Your task to perform on an android device: toggle priority inbox in the gmail app Image 0: 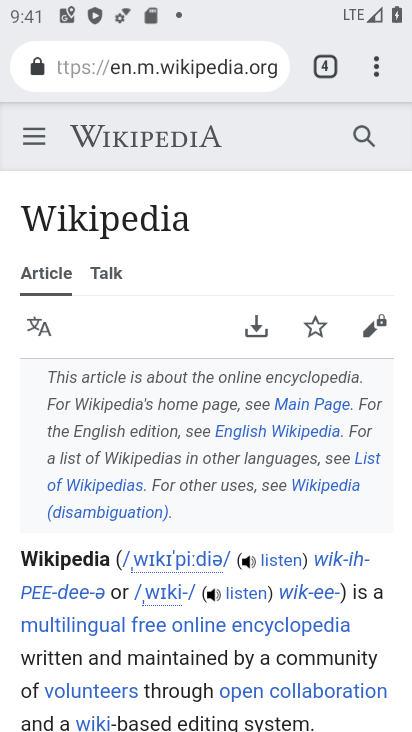
Step 0: press home button
Your task to perform on an android device: toggle priority inbox in the gmail app Image 1: 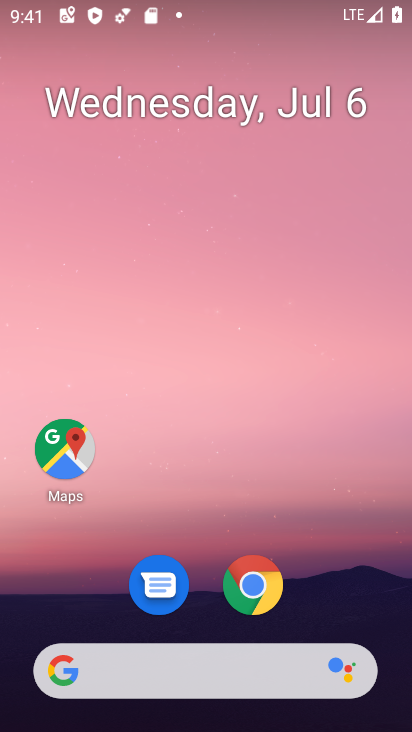
Step 1: click (129, 684)
Your task to perform on an android device: toggle priority inbox in the gmail app Image 2: 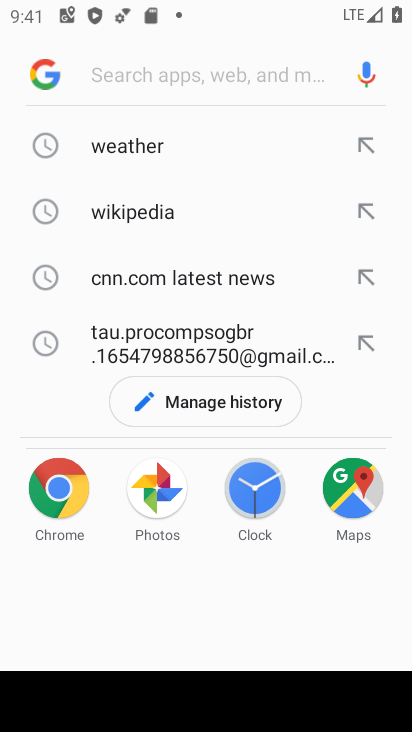
Step 2: press home button
Your task to perform on an android device: toggle priority inbox in the gmail app Image 3: 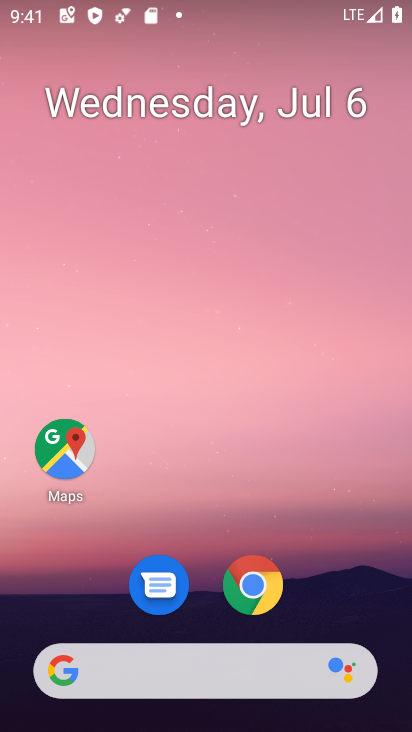
Step 3: drag from (242, 497) to (270, 1)
Your task to perform on an android device: toggle priority inbox in the gmail app Image 4: 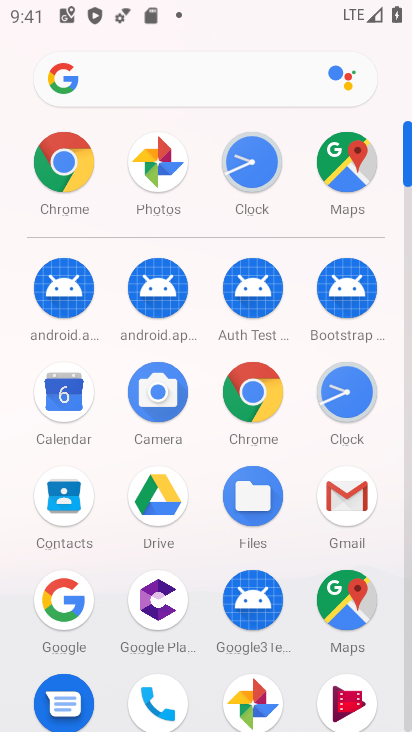
Step 4: click (351, 498)
Your task to perform on an android device: toggle priority inbox in the gmail app Image 5: 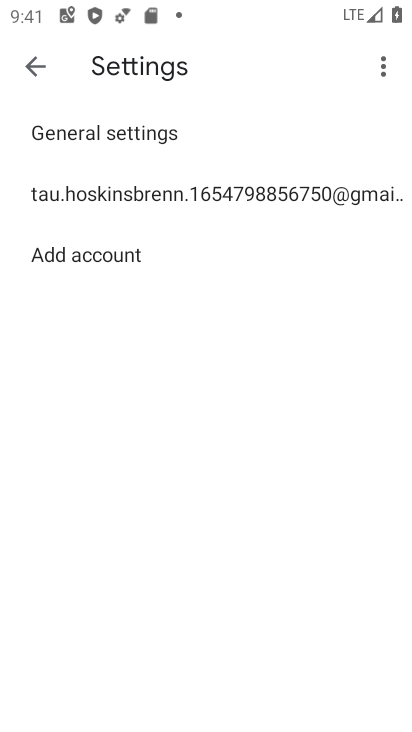
Step 5: click (106, 182)
Your task to perform on an android device: toggle priority inbox in the gmail app Image 6: 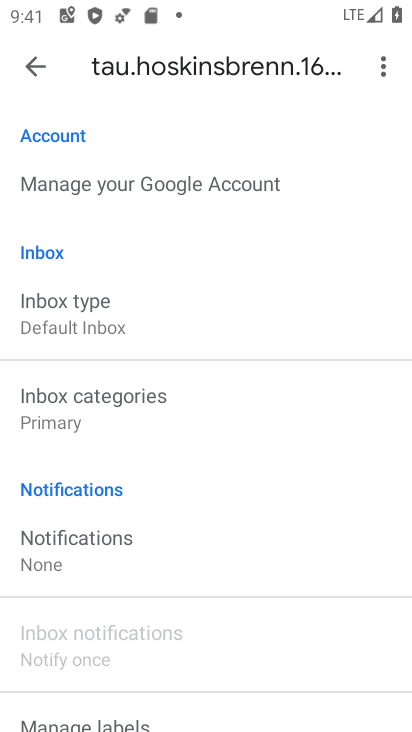
Step 6: click (97, 307)
Your task to perform on an android device: toggle priority inbox in the gmail app Image 7: 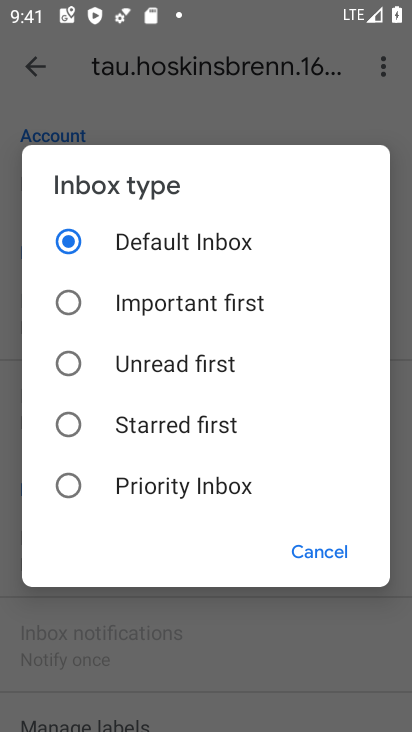
Step 7: click (65, 486)
Your task to perform on an android device: toggle priority inbox in the gmail app Image 8: 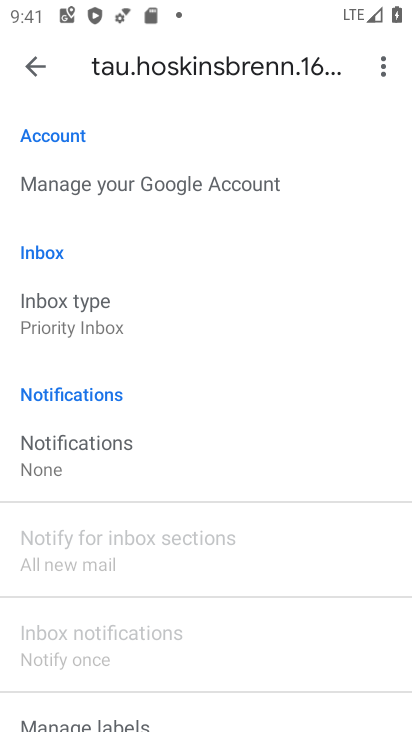
Step 8: task complete